Your task to perform on an android device: When is my next meeting? Image 0: 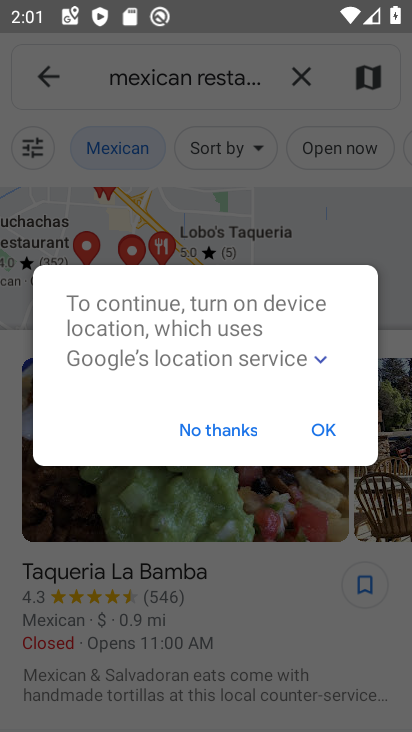
Step 0: press home button
Your task to perform on an android device: When is my next meeting? Image 1: 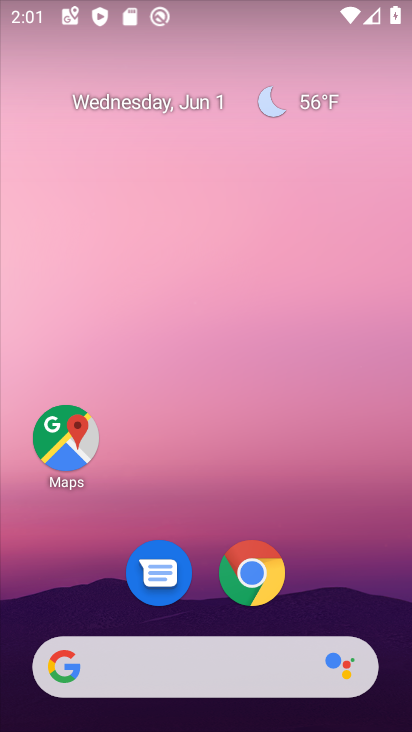
Step 1: drag from (372, 595) to (254, 47)
Your task to perform on an android device: When is my next meeting? Image 2: 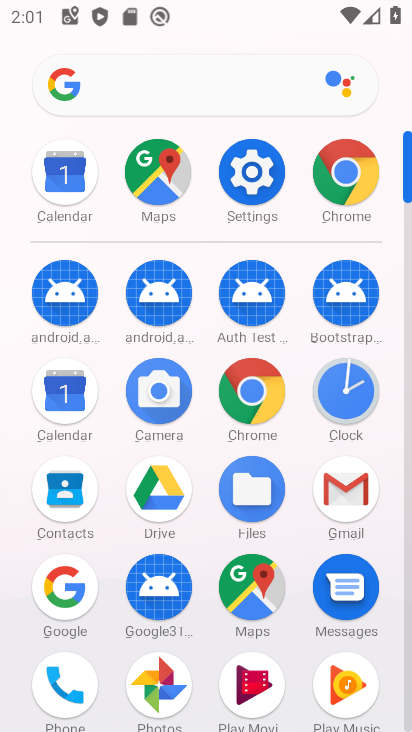
Step 2: click (57, 411)
Your task to perform on an android device: When is my next meeting? Image 3: 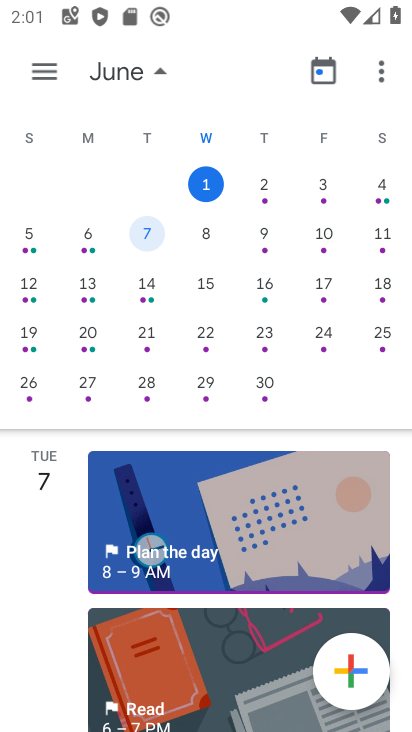
Step 3: click (264, 186)
Your task to perform on an android device: When is my next meeting? Image 4: 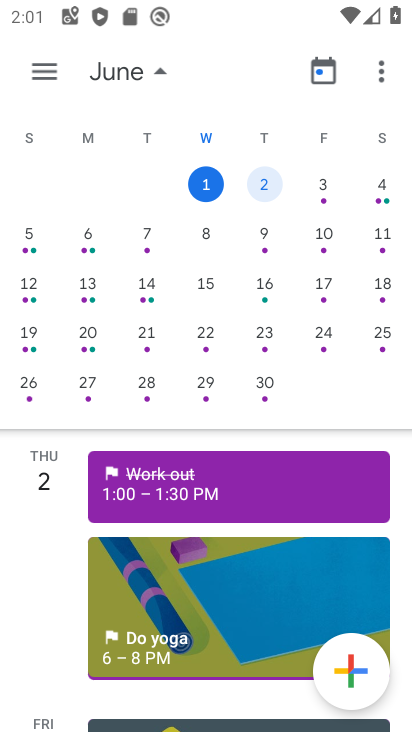
Step 4: task complete